Your task to perform on an android device: Open Amazon Image 0: 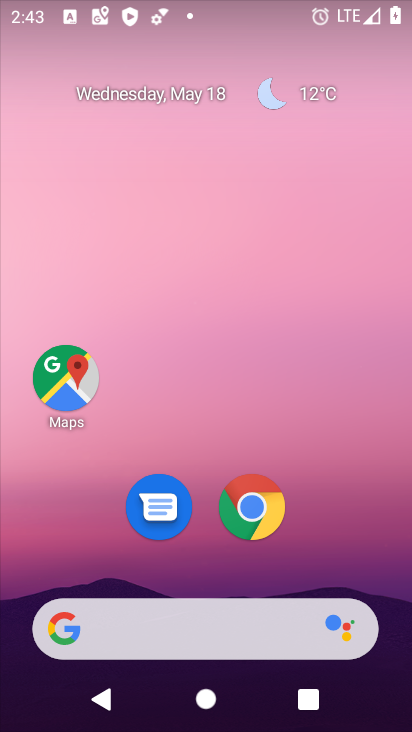
Step 0: click (254, 508)
Your task to perform on an android device: Open Amazon Image 1: 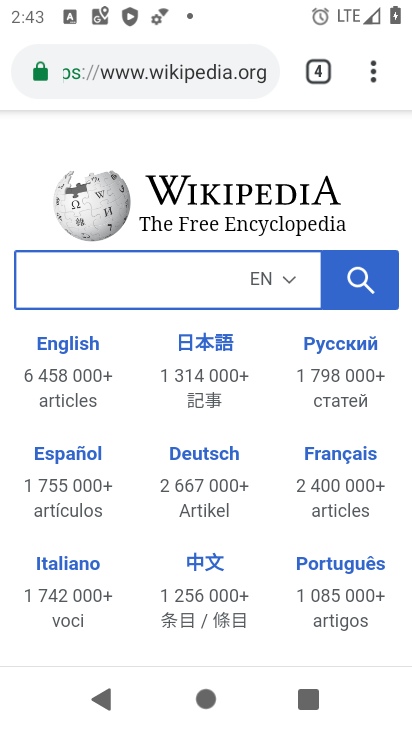
Step 1: click (192, 68)
Your task to perform on an android device: Open Amazon Image 2: 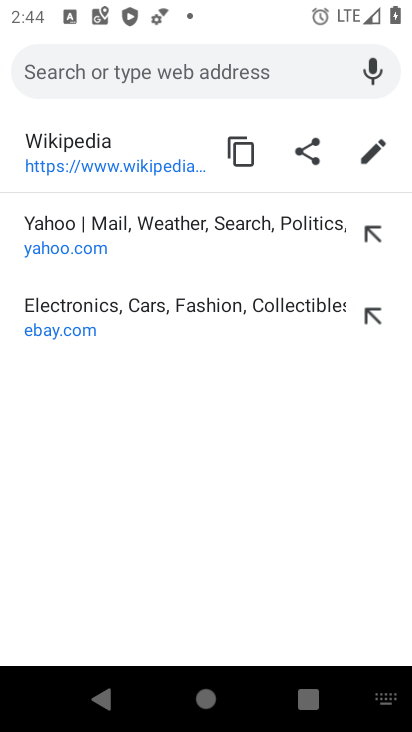
Step 2: type "amazon"
Your task to perform on an android device: Open Amazon Image 3: 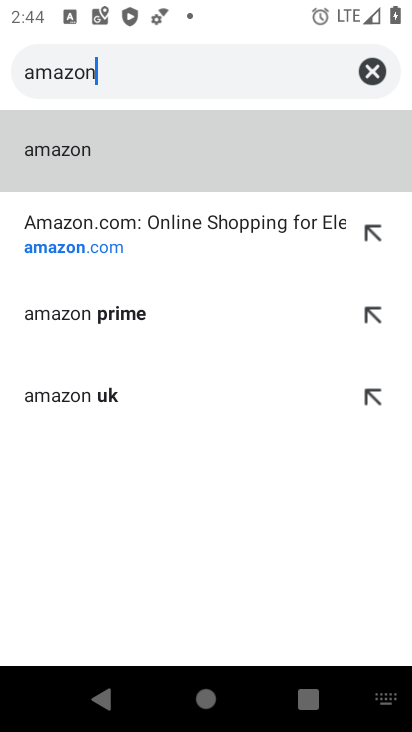
Step 3: click (92, 233)
Your task to perform on an android device: Open Amazon Image 4: 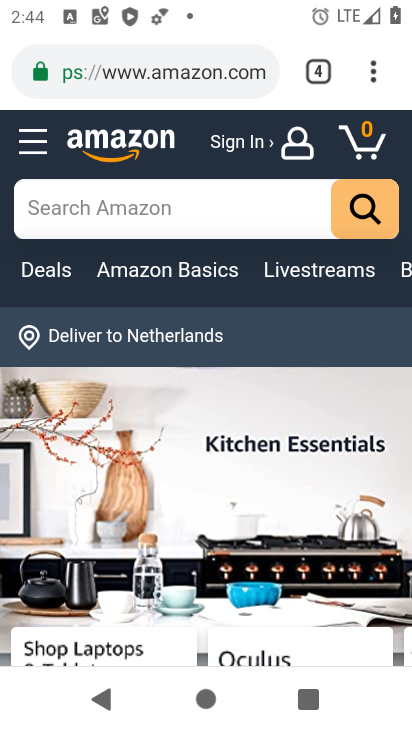
Step 4: task complete